Your task to perform on an android device: turn on improve location accuracy Image 0: 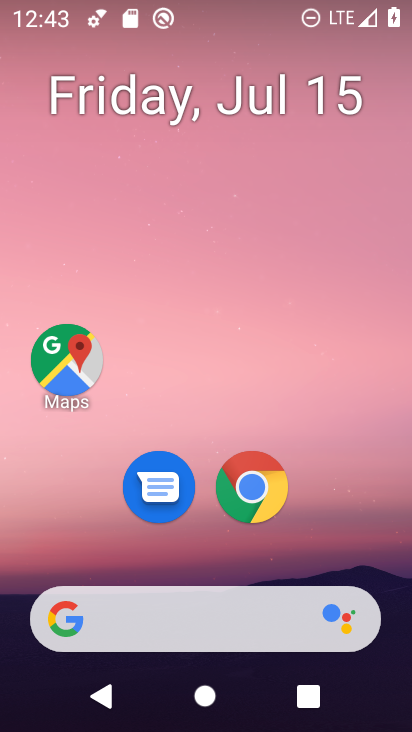
Step 0: drag from (186, 610) to (284, 164)
Your task to perform on an android device: turn on improve location accuracy Image 1: 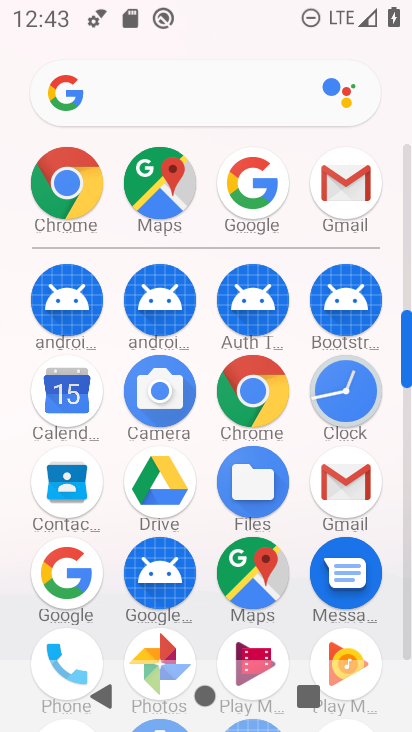
Step 1: drag from (171, 444) to (284, 21)
Your task to perform on an android device: turn on improve location accuracy Image 2: 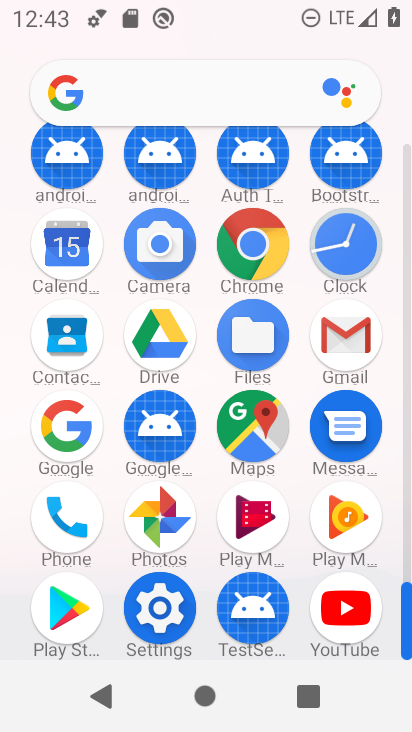
Step 2: click (167, 598)
Your task to perform on an android device: turn on improve location accuracy Image 3: 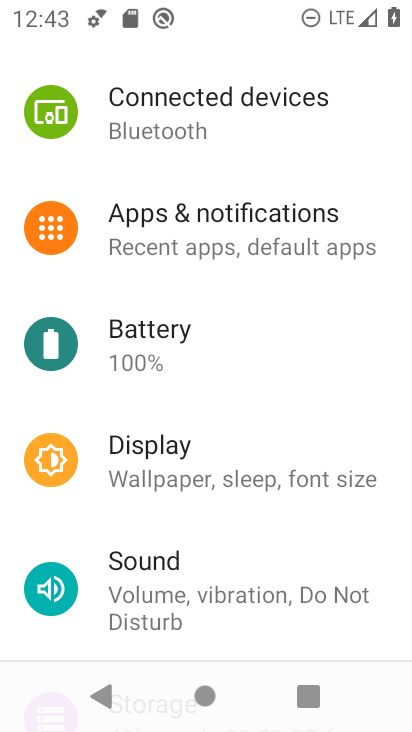
Step 3: drag from (217, 511) to (249, 190)
Your task to perform on an android device: turn on improve location accuracy Image 4: 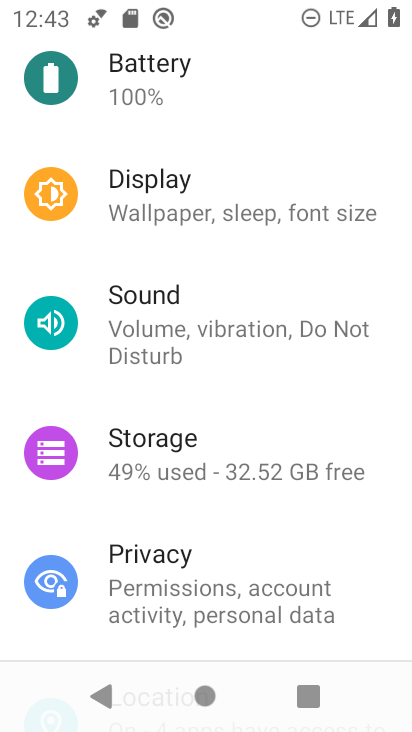
Step 4: drag from (228, 486) to (284, 210)
Your task to perform on an android device: turn on improve location accuracy Image 5: 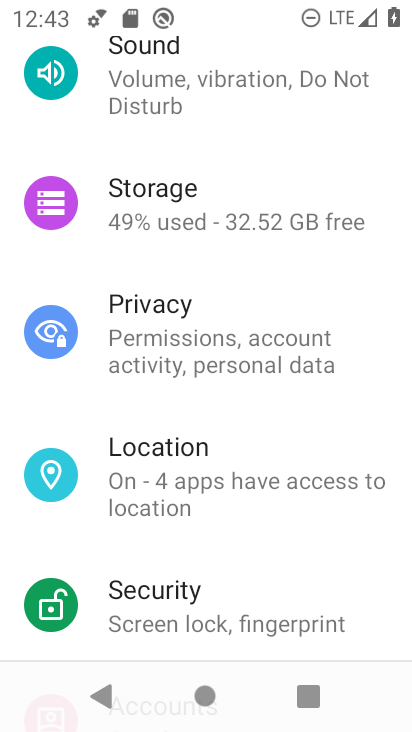
Step 5: click (224, 467)
Your task to perform on an android device: turn on improve location accuracy Image 6: 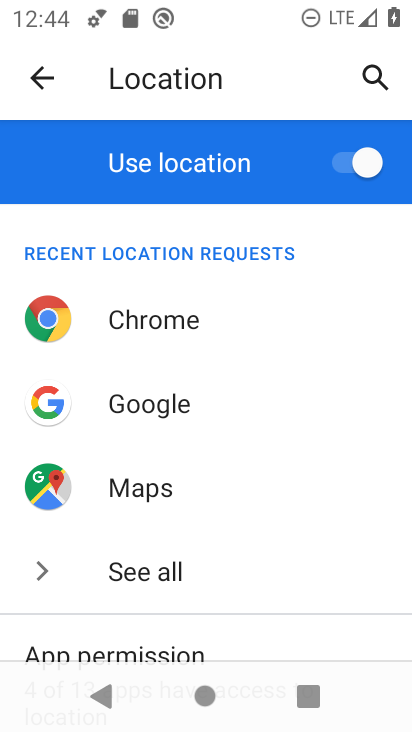
Step 6: drag from (218, 534) to (257, 267)
Your task to perform on an android device: turn on improve location accuracy Image 7: 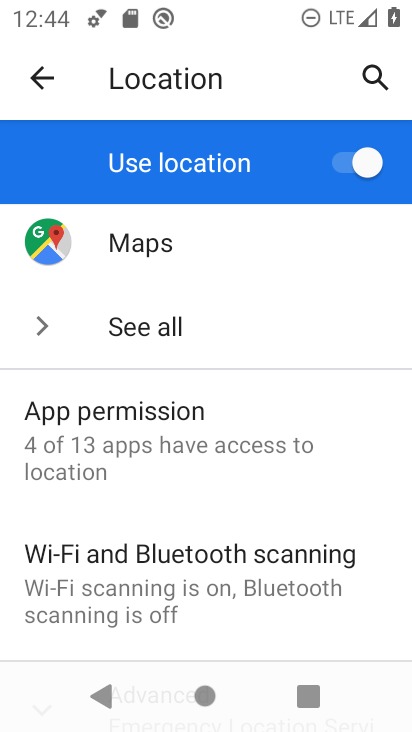
Step 7: drag from (203, 544) to (253, 201)
Your task to perform on an android device: turn on improve location accuracy Image 8: 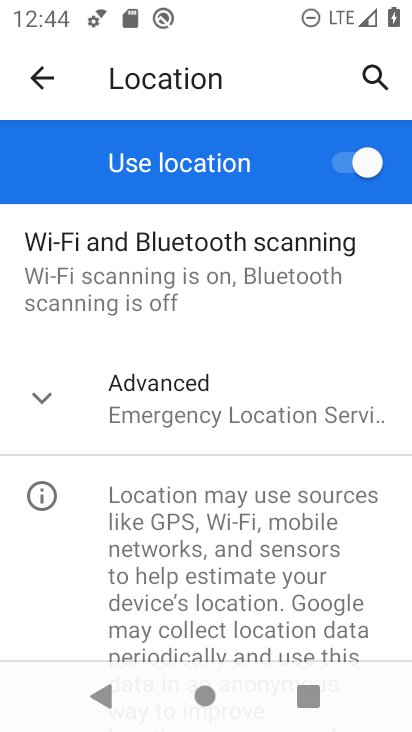
Step 8: click (214, 394)
Your task to perform on an android device: turn on improve location accuracy Image 9: 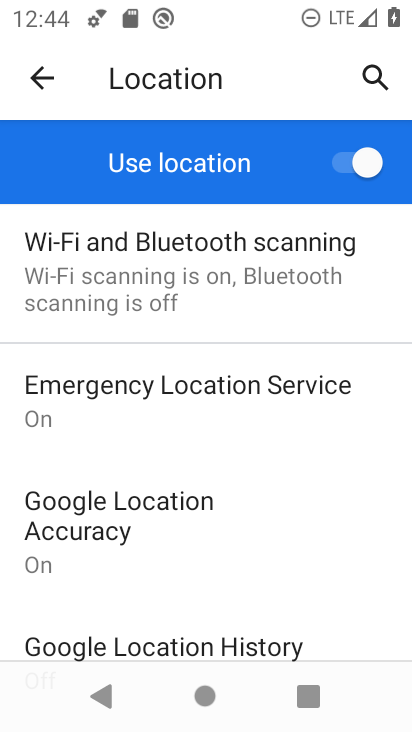
Step 9: click (169, 496)
Your task to perform on an android device: turn on improve location accuracy Image 10: 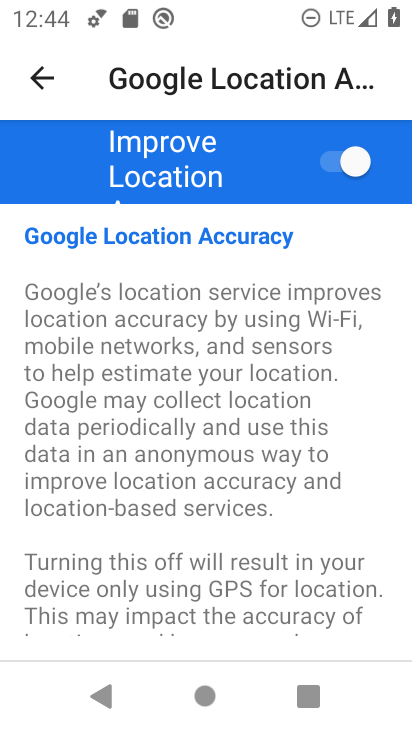
Step 10: task complete